Your task to perform on an android device: Go to battery settings Image 0: 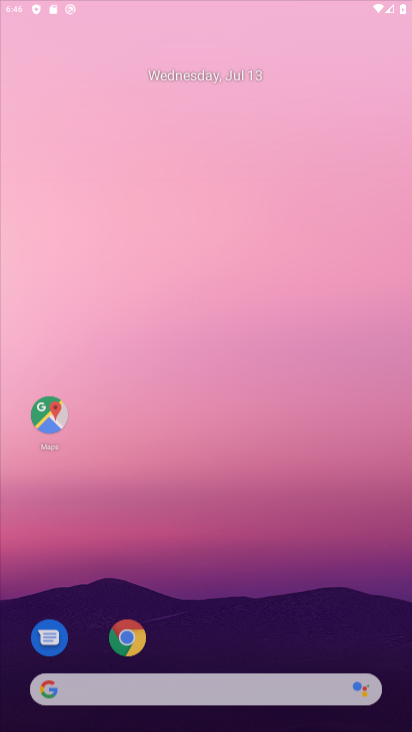
Step 0: click (227, 107)
Your task to perform on an android device: Go to battery settings Image 1: 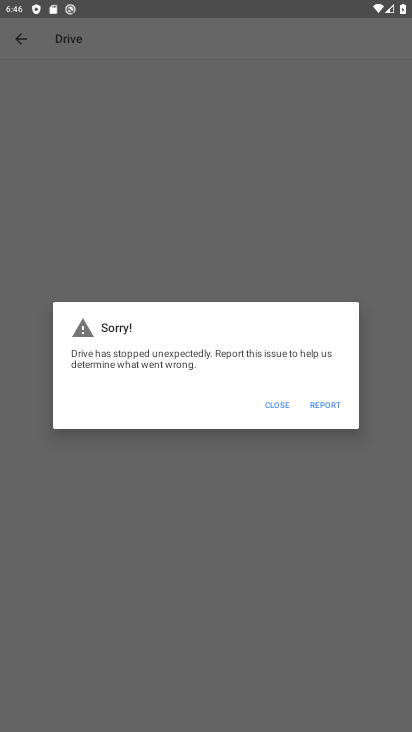
Step 1: drag from (290, 623) to (165, 158)
Your task to perform on an android device: Go to battery settings Image 2: 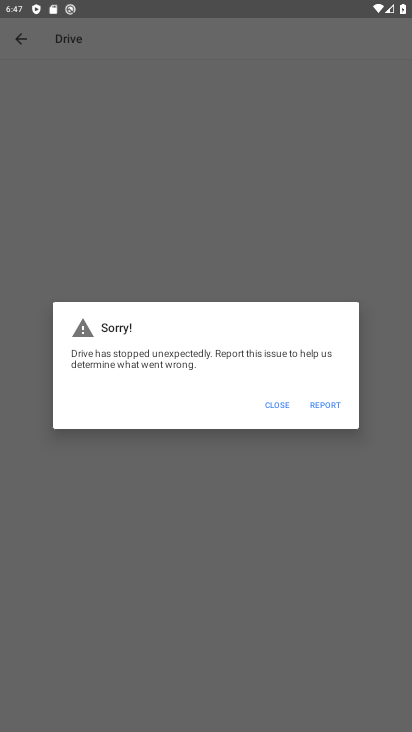
Step 2: press home button
Your task to perform on an android device: Go to battery settings Image 3: 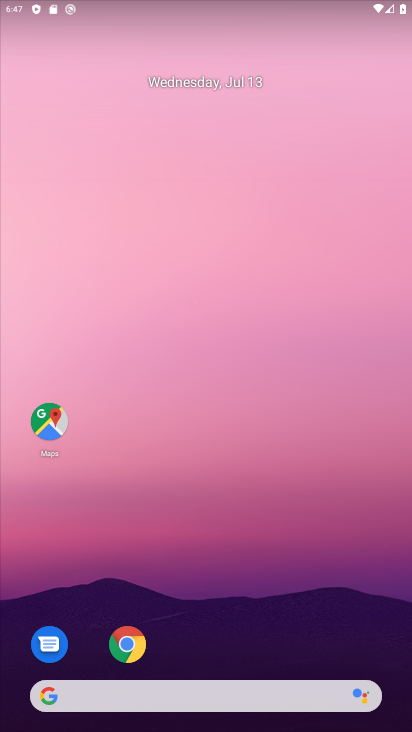
Step 3: drag from (218, 614) to (198, 226)
Your task to perform on an android device: Go to battery settings Image 4: 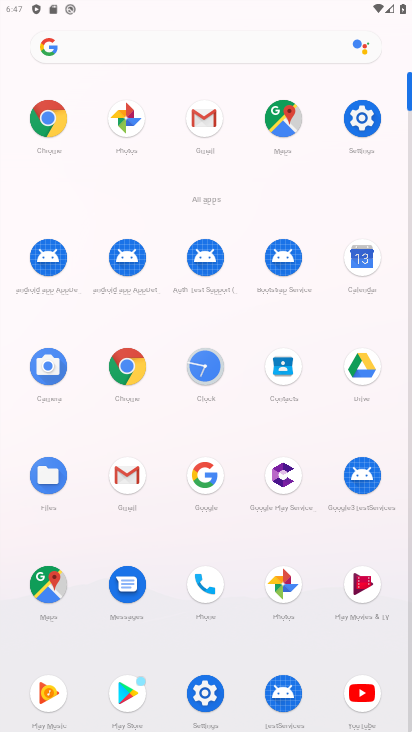
Step 4: click (361, 116)
Your task to perform on an android device: Go to battery settings Image 5: 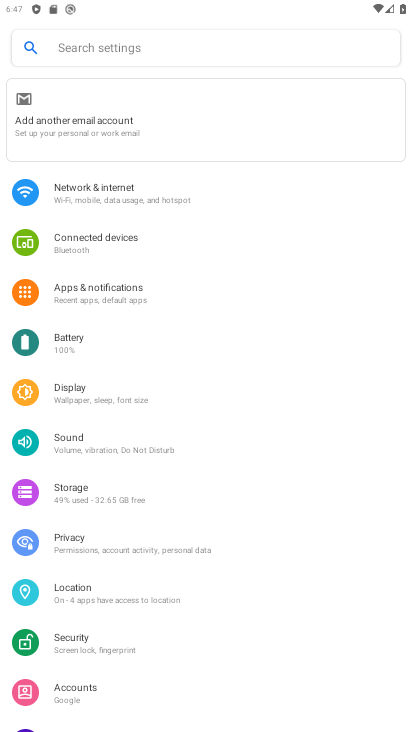
Step 5: click (69, 343)
Your task to perform on an android device: Go to battery settings Image 6: 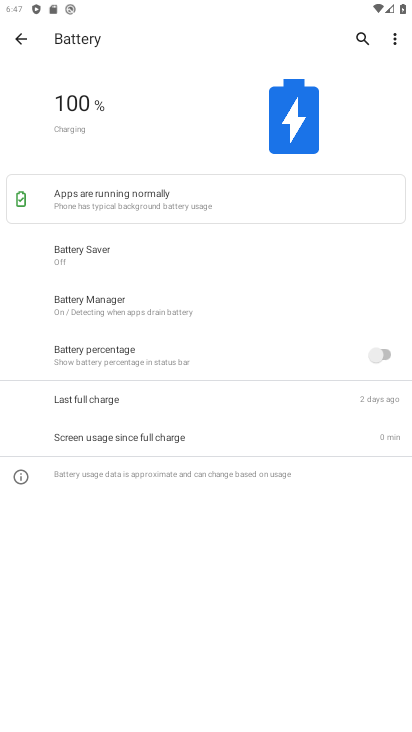
Step 6: task complete